Your task to perform on an android device: open app "Grab" (install if not already installed) Image 0: 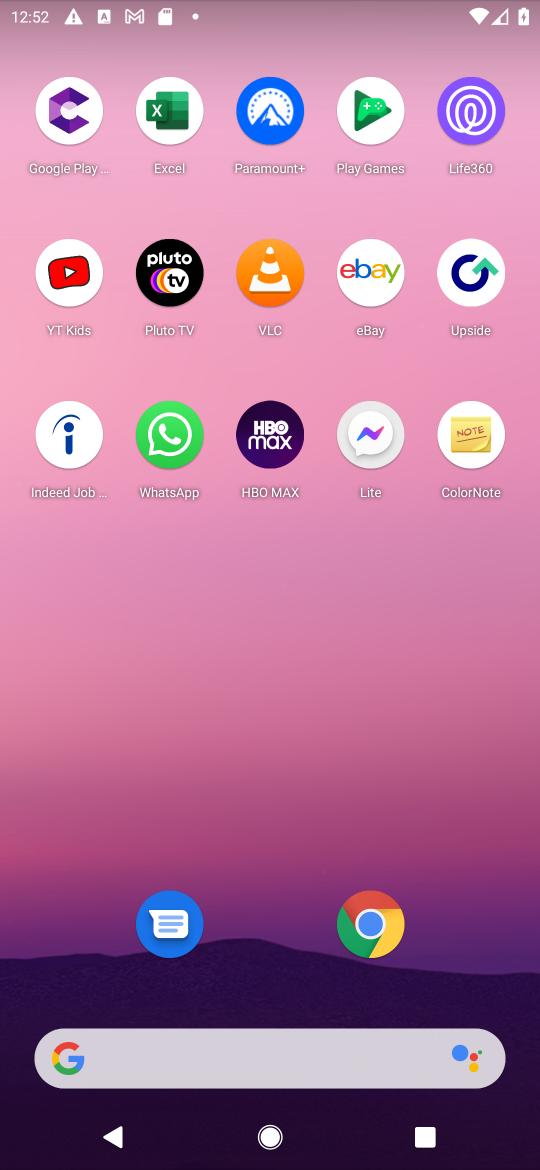
Step 0: drag from (462, 898) to (456, 118)
Your task to perform on an android device: open app "Grab" (install if not already installed) Image 1: 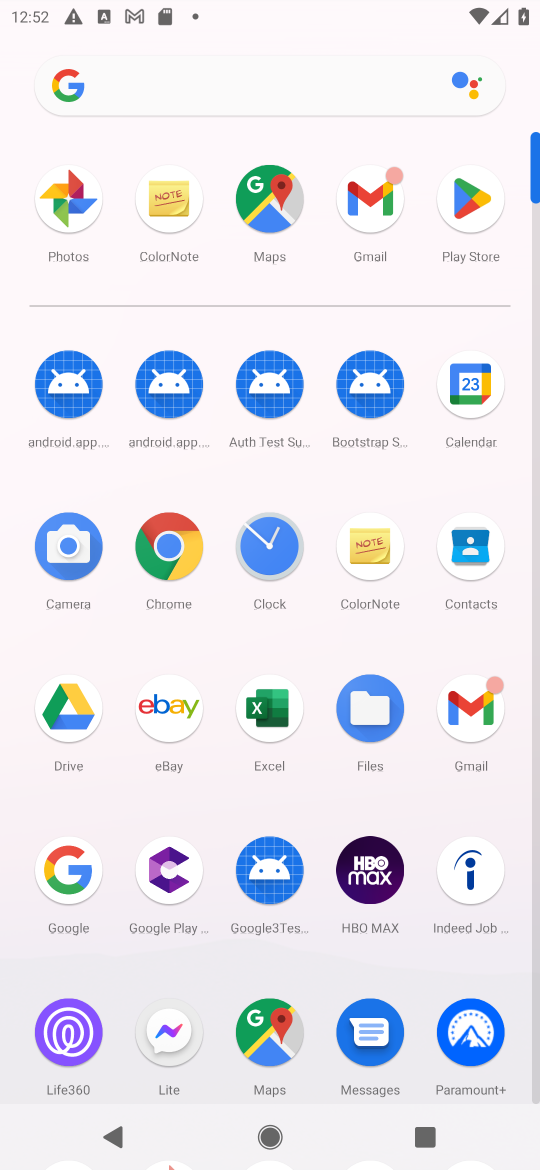
Step 1: click (467, 204)
Your task to perform on an android device: open app "Grab" (install if not already installed) Image 2: 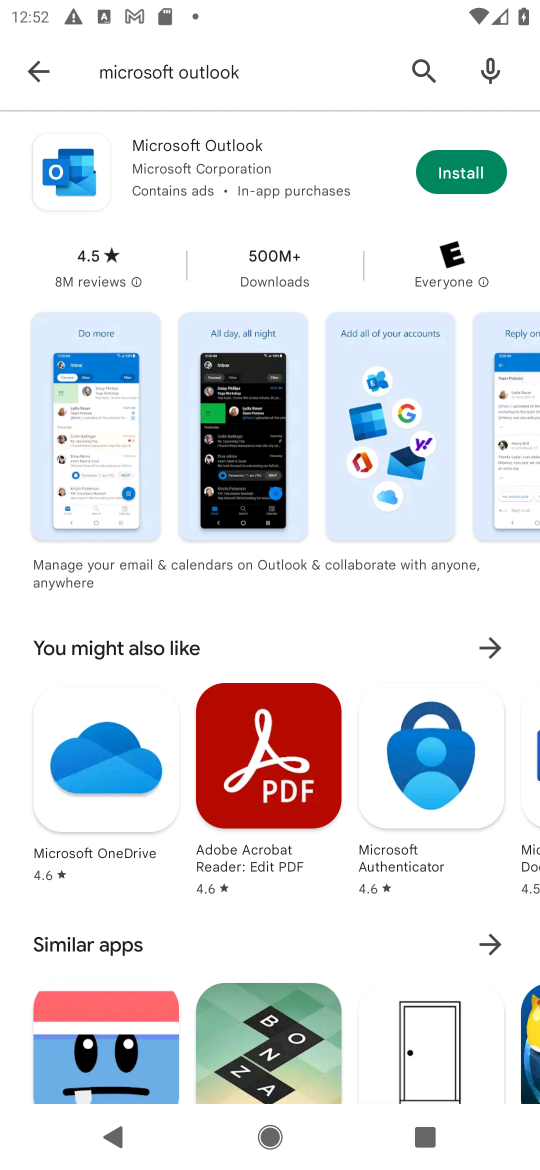
Step 2: press back button
Your task to perform on an android device: open app "Grab" (install if not already installed) Image 3: 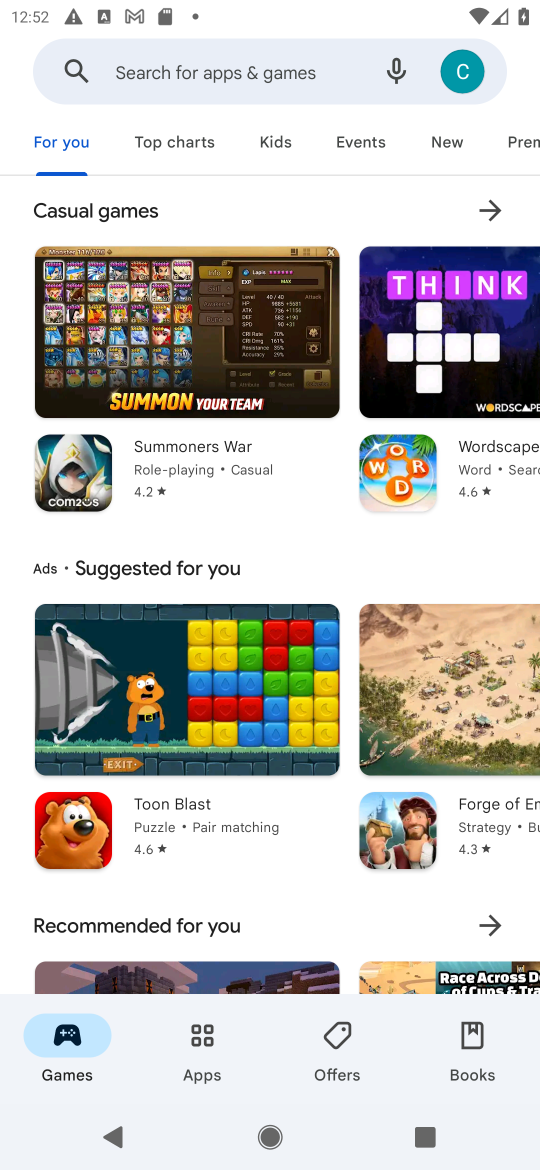
Step 3: click (226, 78)
Your task to perform on an android device: open app "Grab" (install if not already installed) Image 4: 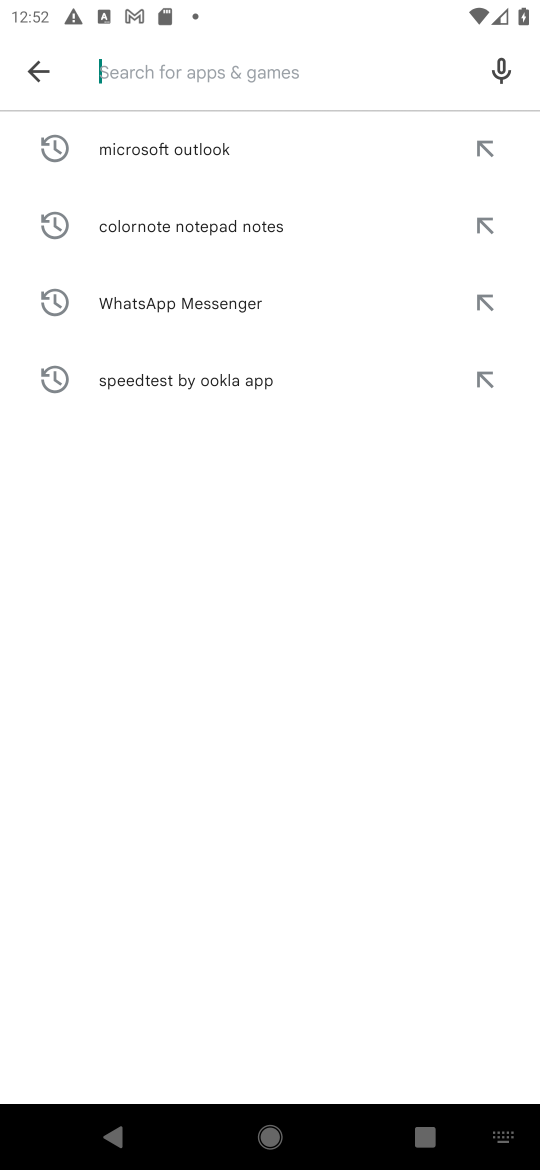
Step 4: type "grab"
Your task to perform on an android device: open app "Grab" (install if not already installed) Image 5: 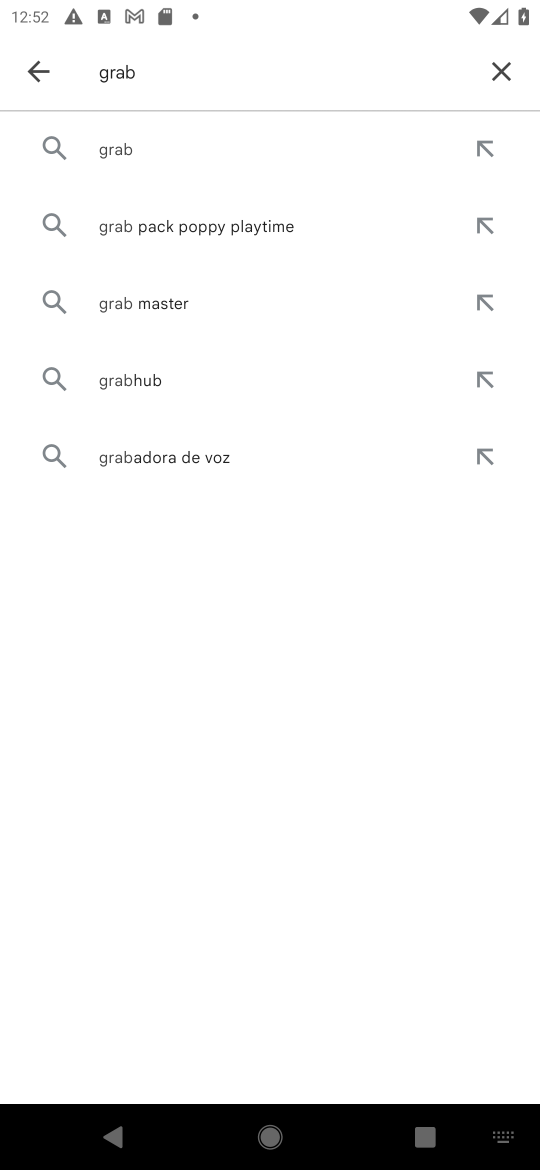
Step 5: click (123, 143)
Your task to perform on an android device: open app "Grab" (install if not already installed) Image 6: 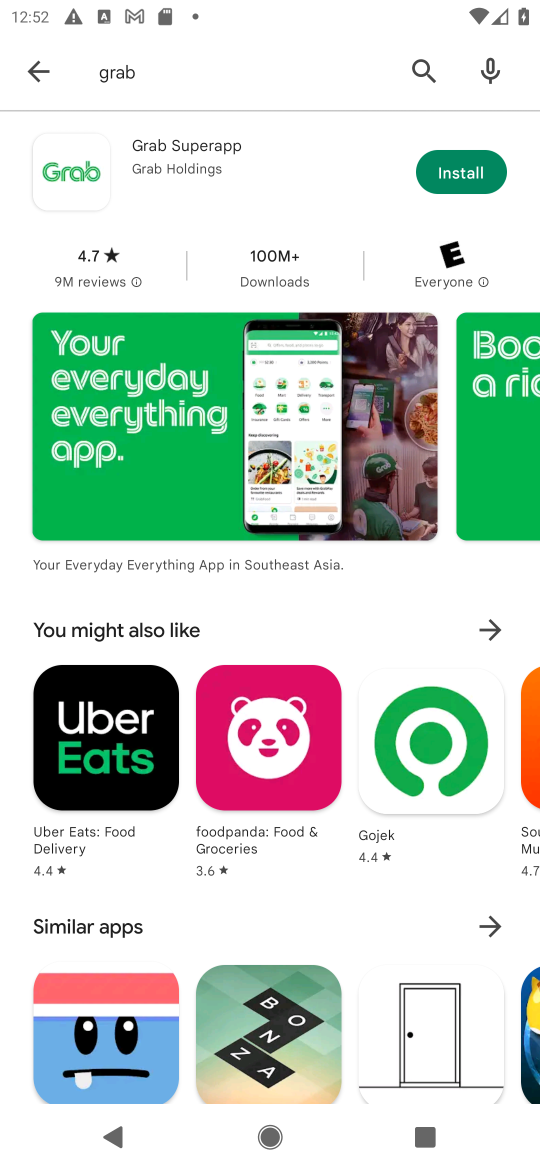
Step 6: click (463, 172)
Your task to perform on an android device: open app "Grab" (install if not already installed) Image 7: 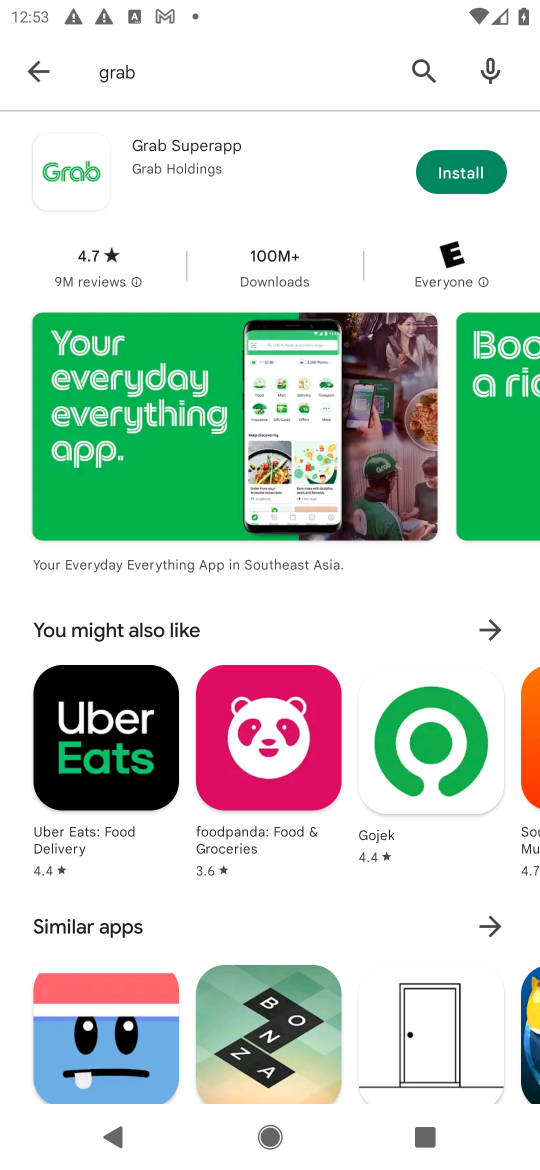
Step 7: click (462, 176)
Your task to perform on an android device: open app "Grab" (install if not already installed) Image 8: 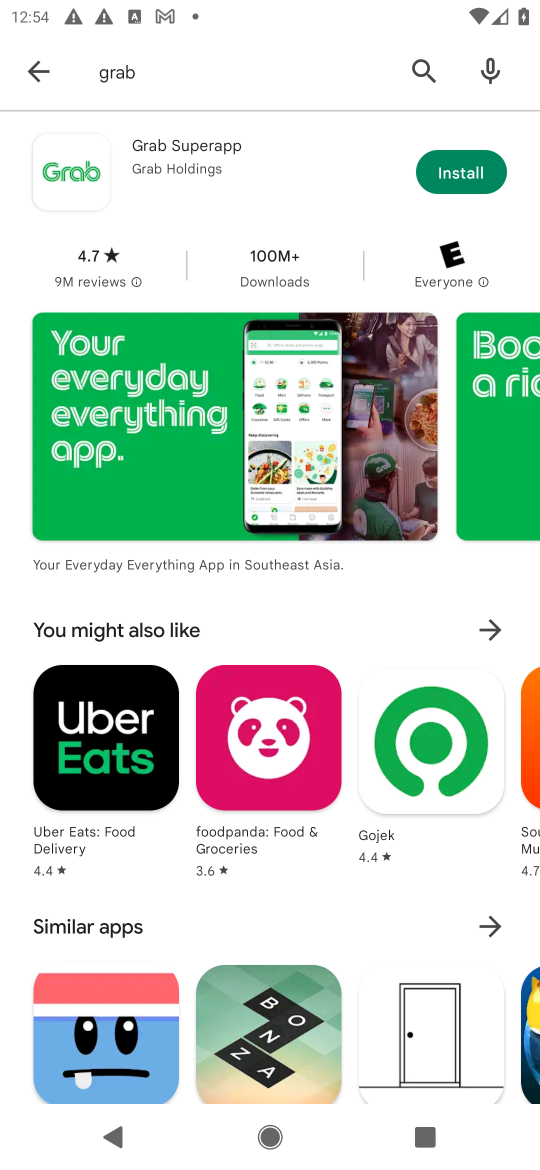
Step 8: task complete